Your task to perform on an android device: Search for seafood restaurants on Google Maps Image 0: 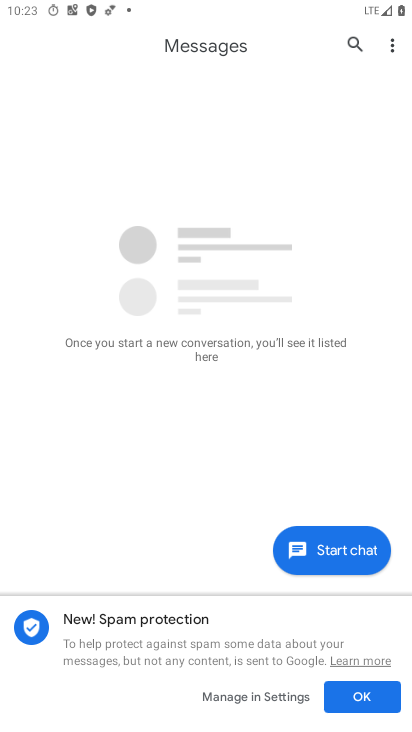
Step 0: press home button
Your task to perform on an android device: Search for seafood restaurants on Google Maps Image 1: 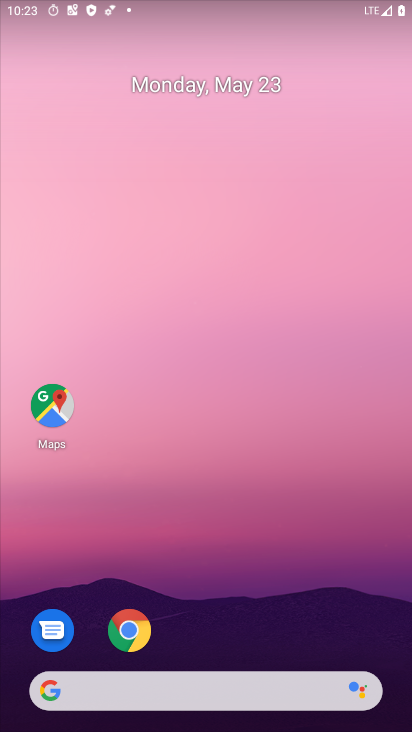
Step 1: click (54, 409)
Your task to perform on an android device: Search for seafood restaurants on Google Maps Image 2: 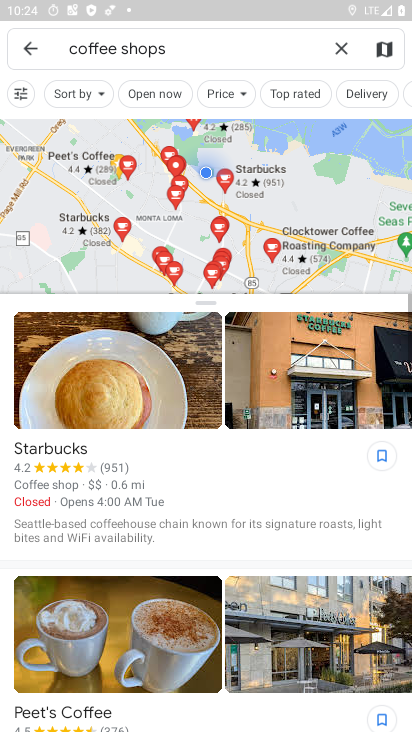
Step 2: click (338, 45)
Your task to perform on an android device: Search for seafood restaurants on Google Maps Image 3: 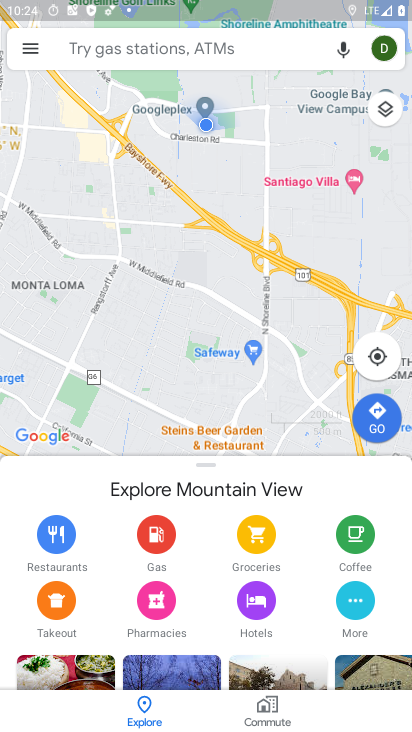
Step 3: click (103, 54)
Your task to perform on an android device: Search for seafood restaurants on Google Maps Image 4: 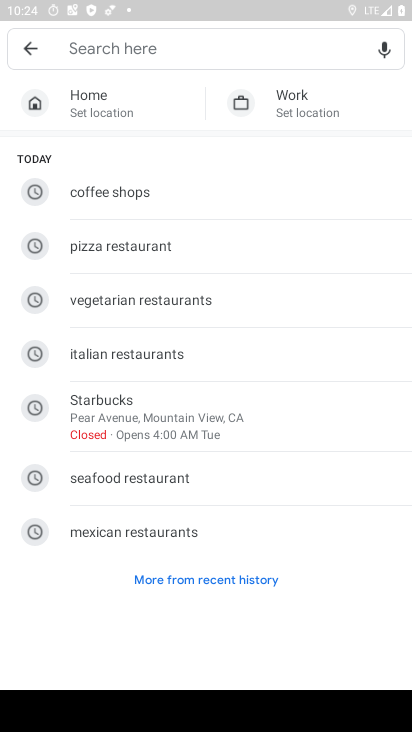
Step 4: type "seafood restaurants"
Your task to perform on an android device: Search for seafood restaurants on Google Maps Image 5: 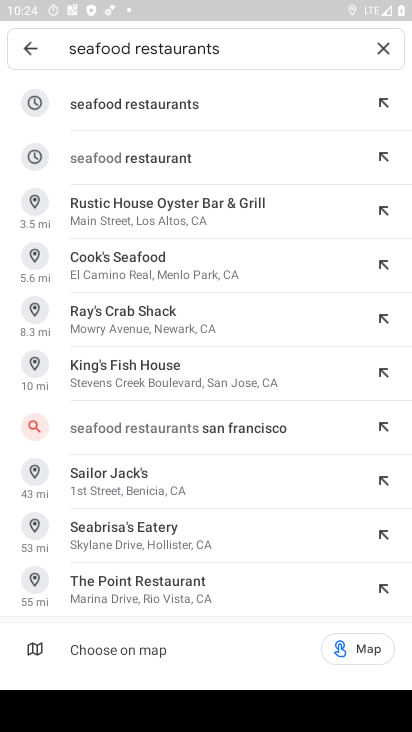
Step 5: click (102, 112)
Your task to perform on an android device: Search for seafood restaurants on Google Maps Image 6: 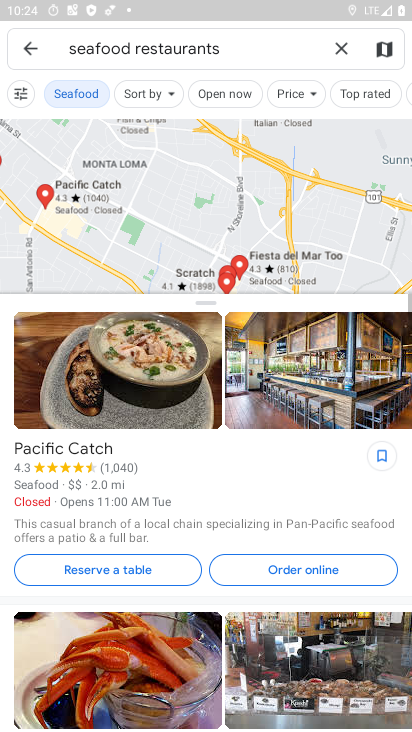
Step 6: task complete